Your task to perform on an android device: turn off notifications settings in the gmail app Image 0: 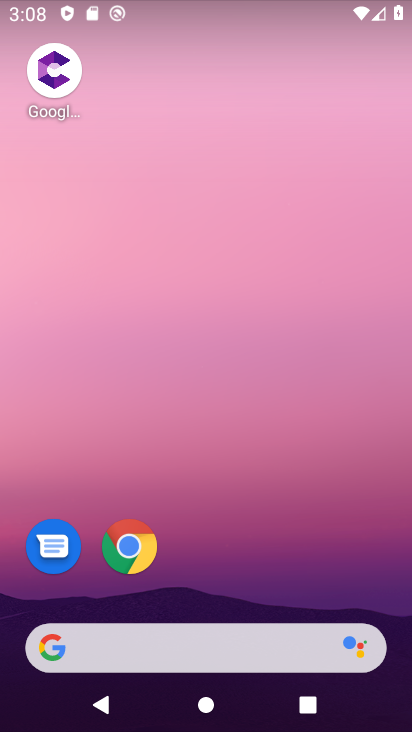
Step 0: drag from (211, 583) to (292, 154)
Your task to perform on an android device: turn off notifications settings in the gmail app Image 1: 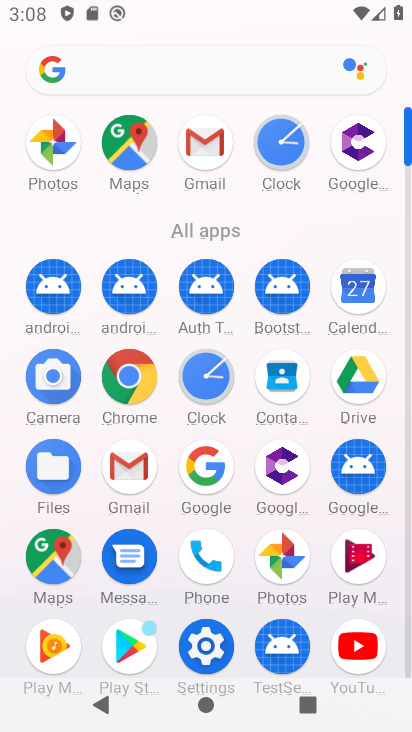
Step 1: drag from (190, 618) to (255, 375)
Your task to perform on an android device: turn off notifications settings in the gmail app Image 2: 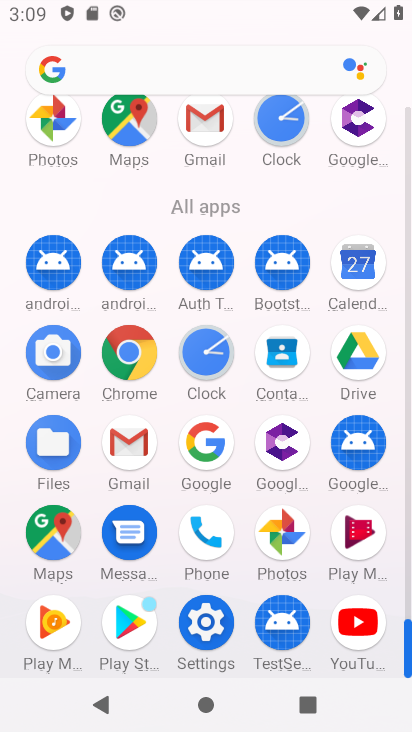
Step 2: click (141, 452)
Your task to perform on an android device: turn off notifications settings in the gmail app Image 3: 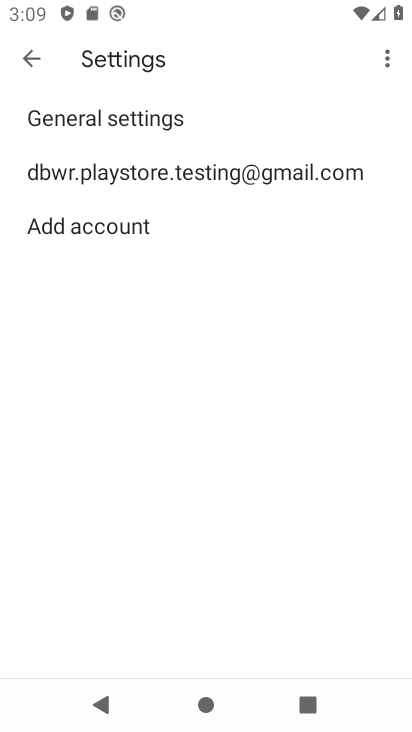
Step 3: click (225, 179)
Your task to perform on an android device: turn off notifications settings in the gmail app Image 4: 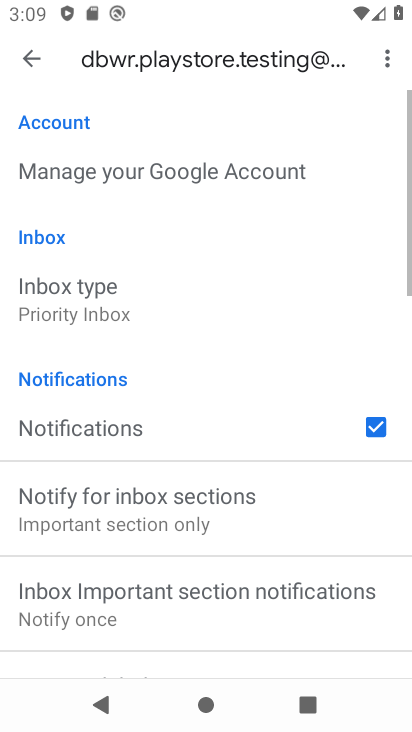
Step 4: drag from (217, 606) to (265, 387)
Your task to perform on an android device: turn off notifications settings in the gmail app Image 5: 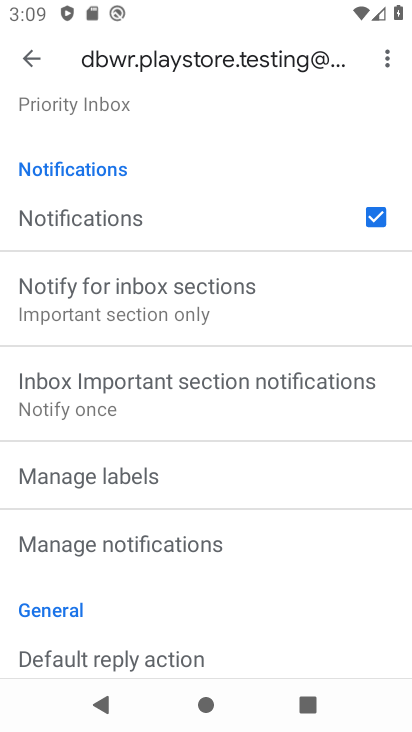
Step 5: click (220, 546)
Your task to perform on an android device: turn off notifications settings in the gmail app Image 6: 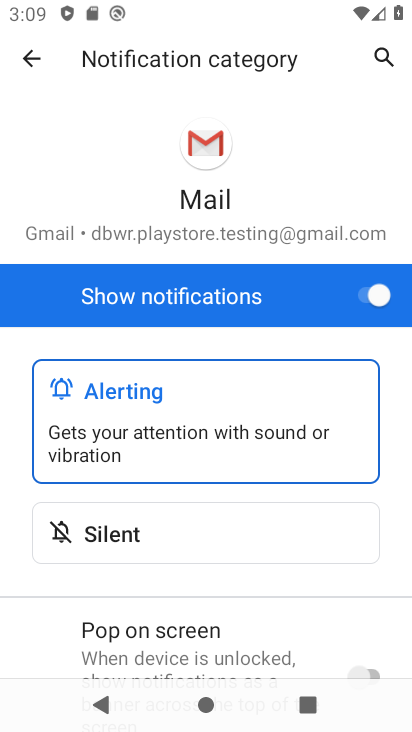
Step 6: click (354, 291)
Your task to perform on an android device: turn off notifications settings in the gmail app Image 7: 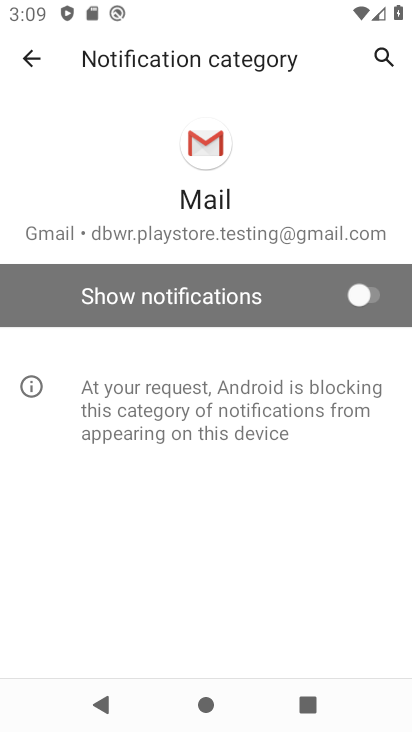
Step 7: task complete